Your task to perform on an android device: delete browsing data in the chrome app Image 0: 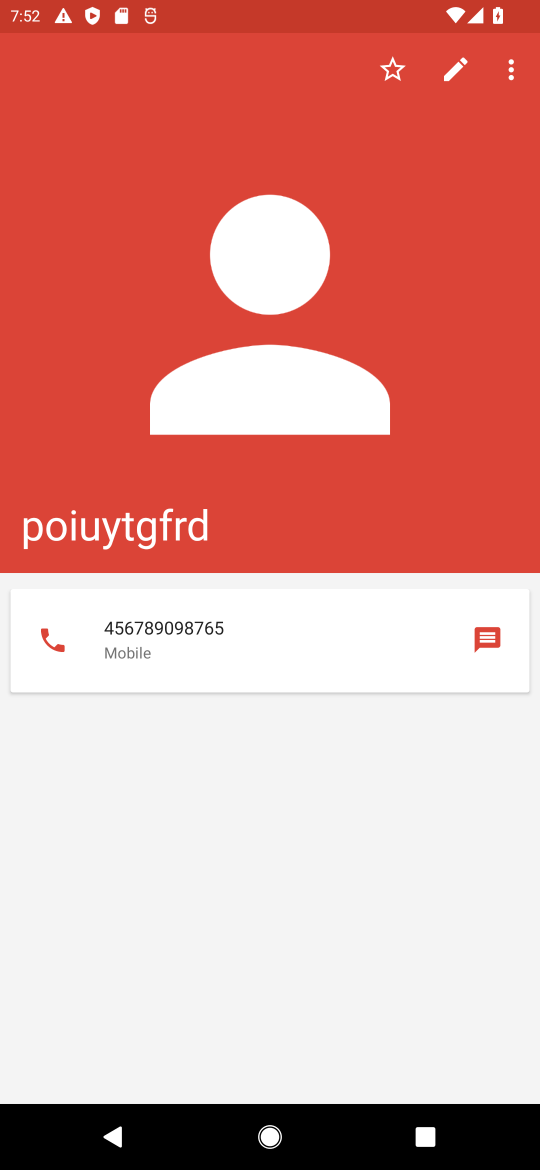
Step 0: press home button
Your task to perform on an android device: delete browsing data in the chrome app Image 1: 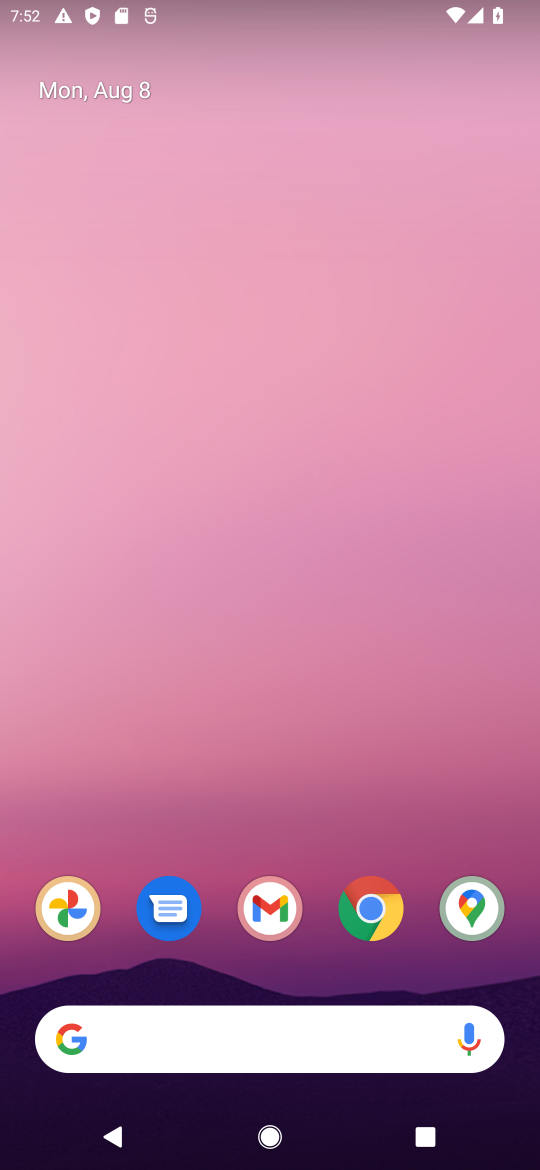
Step 1: click (375, 922)
Your task to perform on an android device: delete browsing data in the chrome app Image 2: 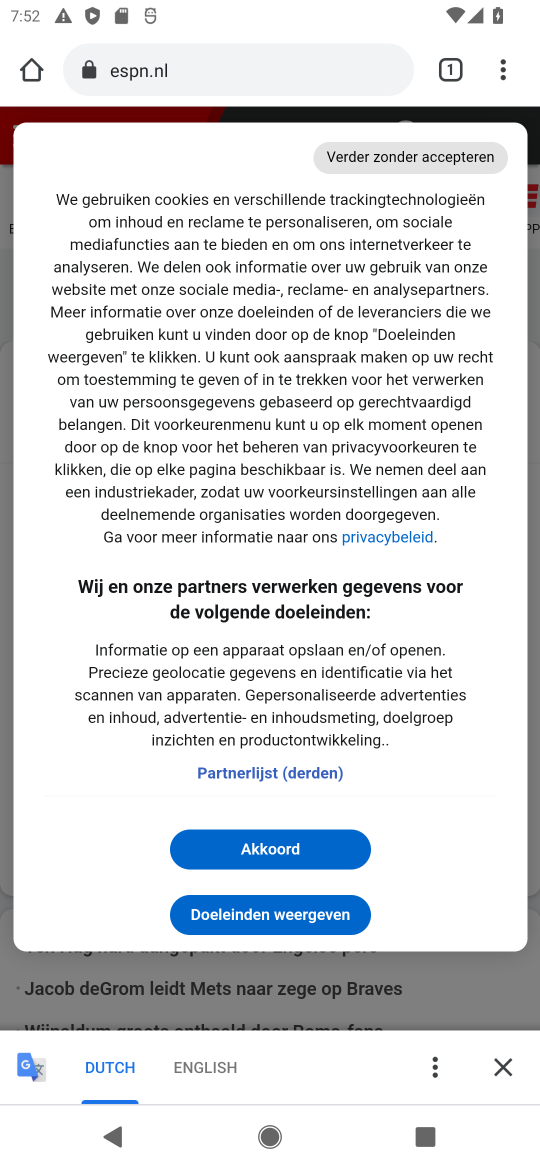
Step 2: click (518, 69)
Your task to perform on an android device: delete browsing data in the chrome app Image 3: 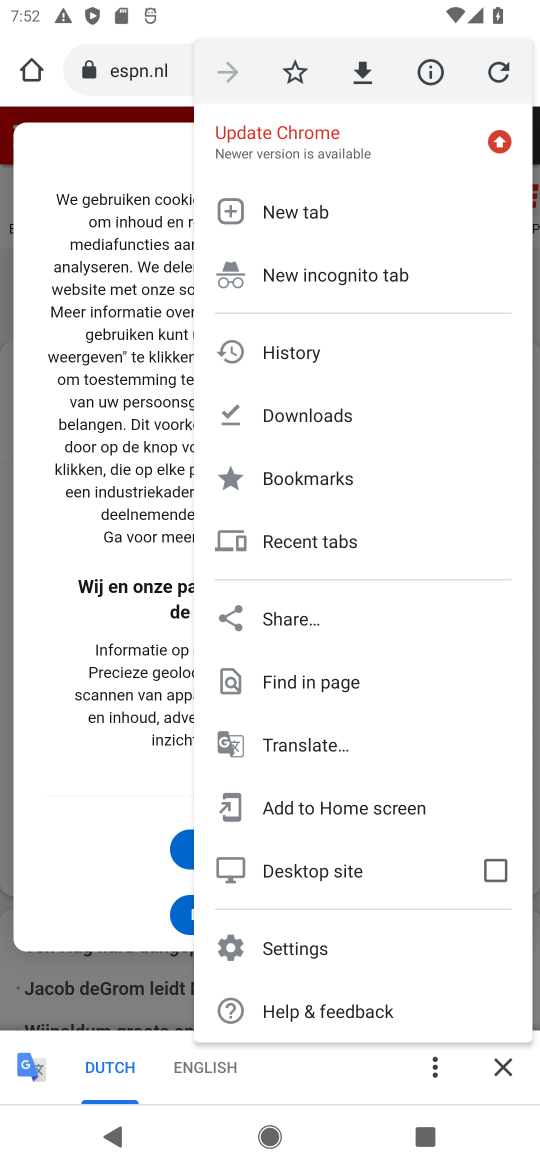
Step 3: click (332, 349)
Your task to perform on an android device: delete browsing data in the chrome app Image 4: 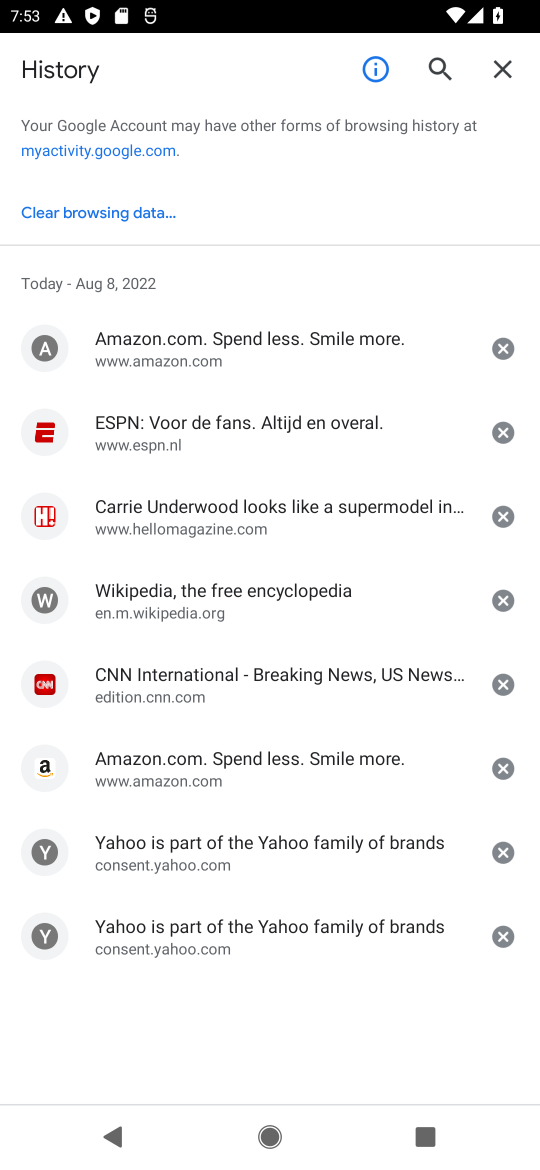
Step 4: click (163, 210)
Your task to perform on an android device: delete browsing data in the chrome app Image 5: 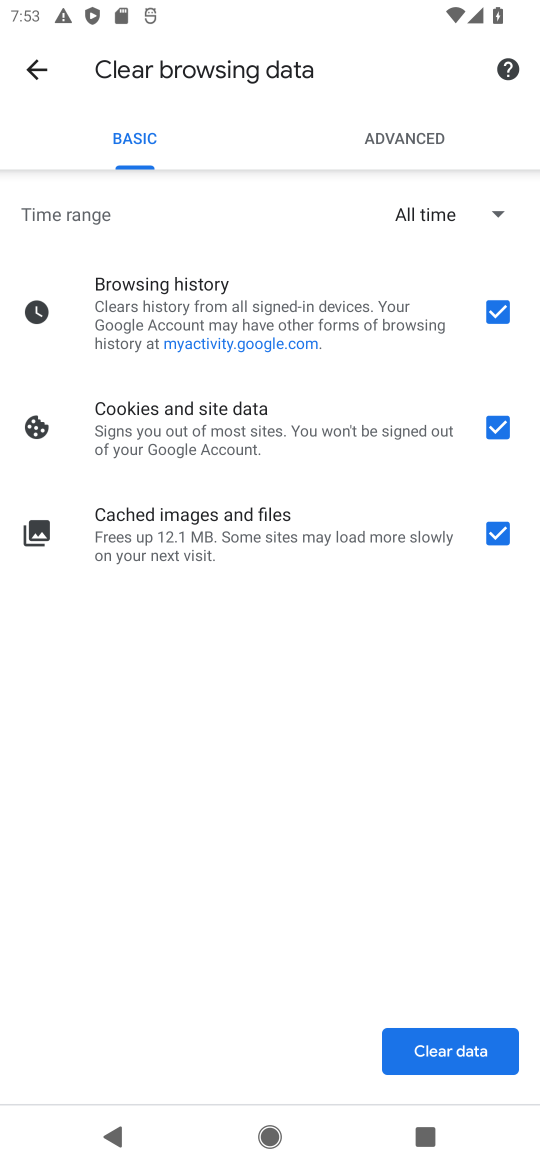
Step 5: click (467, 1033)
Your task to perform on an android device: delete browsing data in the chrome app Image 6: 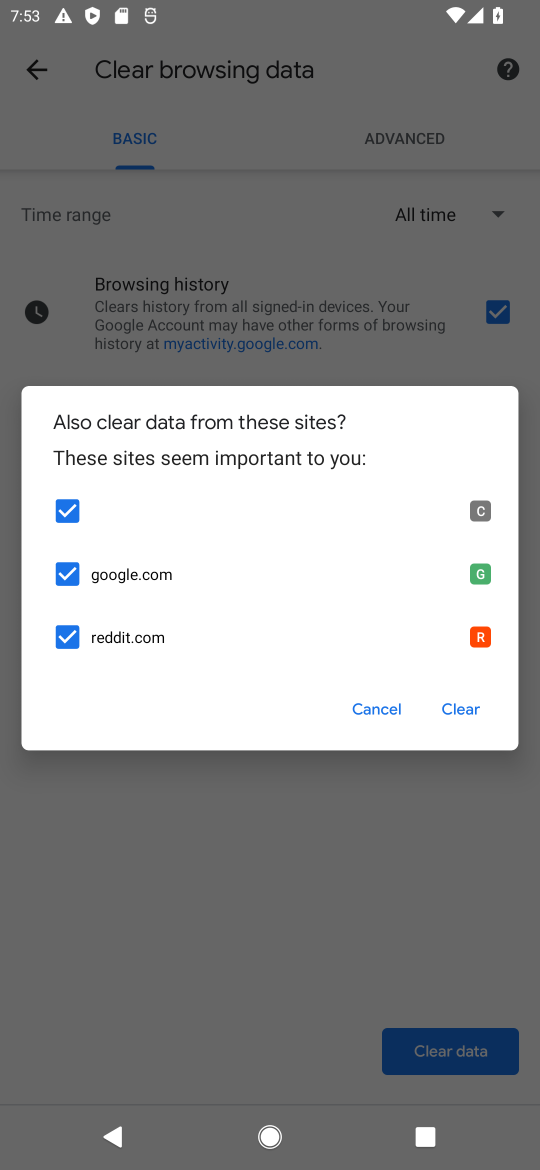
Step 6: click (467, 704)
Your task to perform on an android device: delete browsing data in the chrome app Image 7: 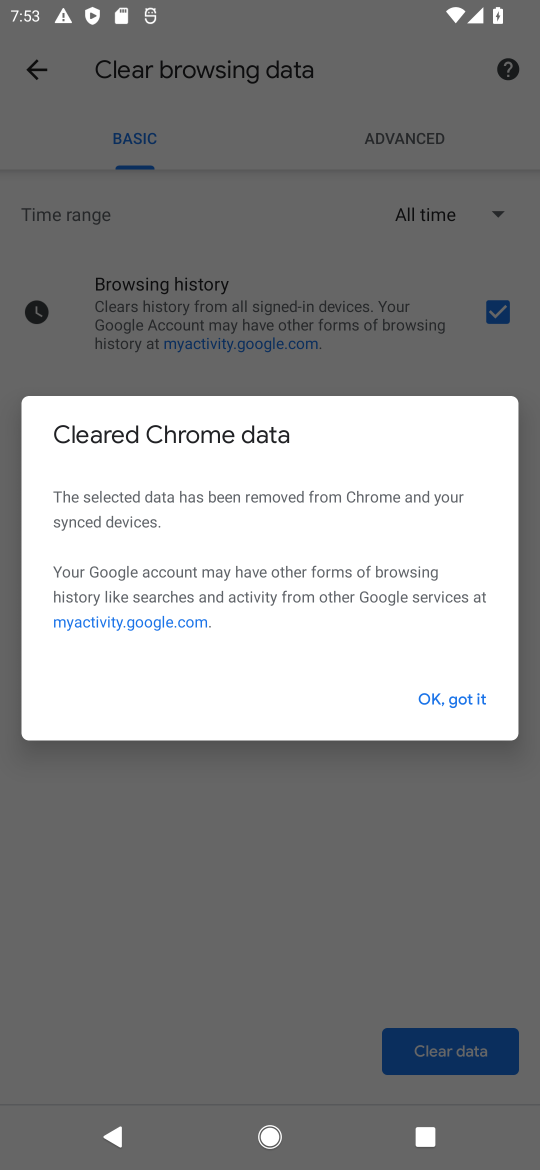
Step 7: click (428, 691)
Your task to perform on an android device: delete browsing data in the chrome app Image 8: 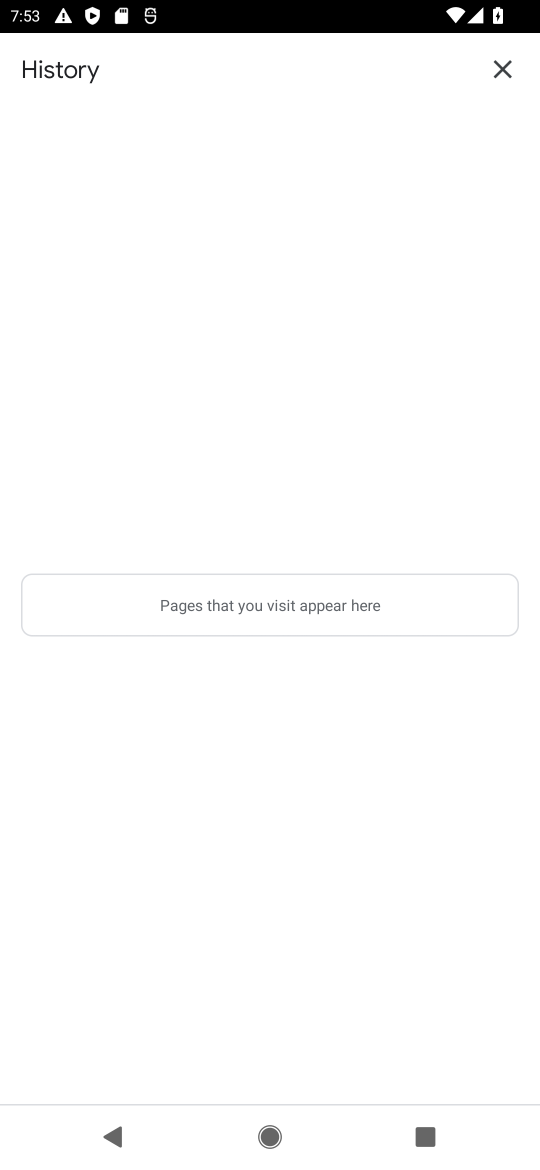
Step 8: task complete